Your task to perform on an android device: Search for seafood restaurants on Google Maps Image 0: 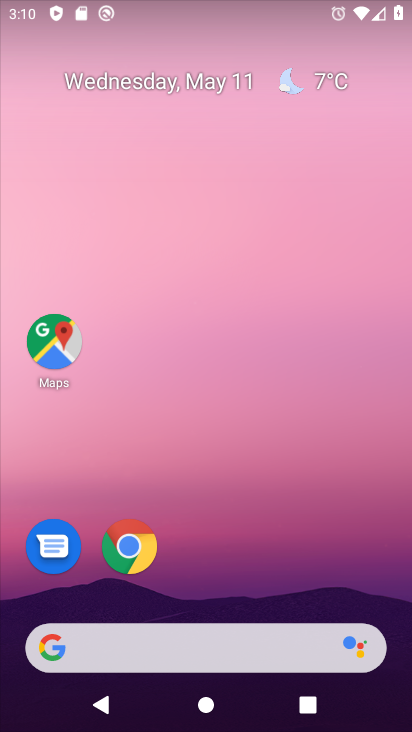
Step 0: drag from (262, 605) to (240, 21)
Your task to perform on an android device: Search for seafood restaurants on Google Maps Image 1: 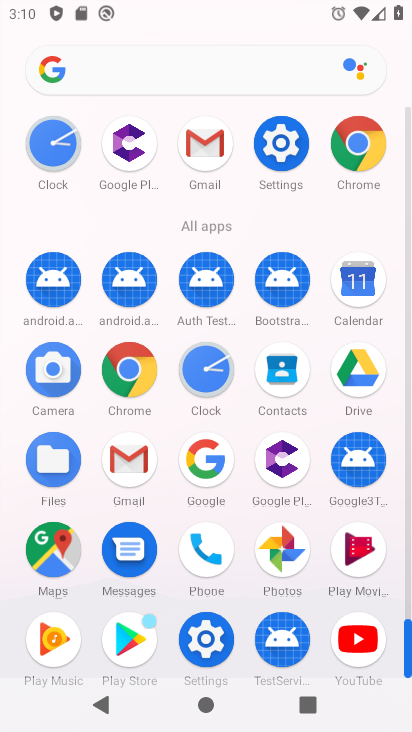
Step 1: click (56, 561)
Your task to perform on an android device: Search for seafood restaurants on Google Maps Image 2: 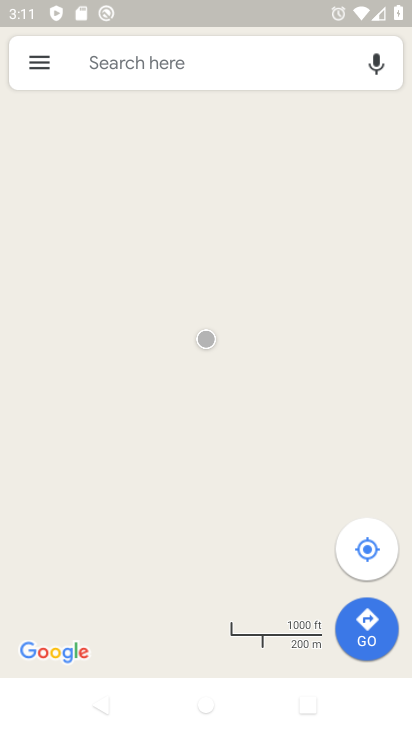
Step 2: click (204, 76)
Your task to perform on an android device: Search for seafood restaurants on Google Maps Image 3: 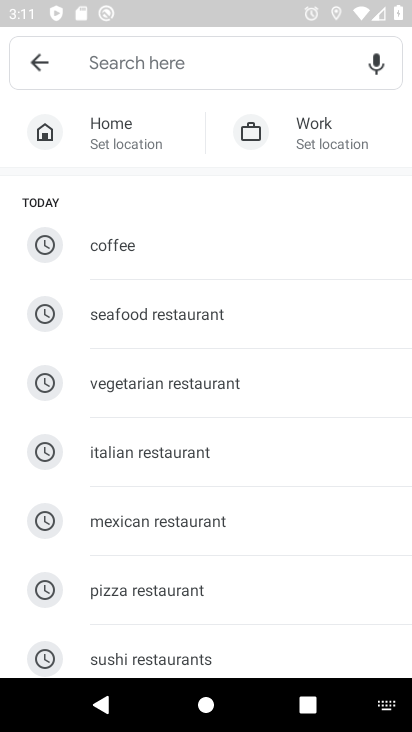
Step 3: type "seafood restaurant"
Your task to perform on an android device: Search for seafood restaurants on Google Maps Image 4: 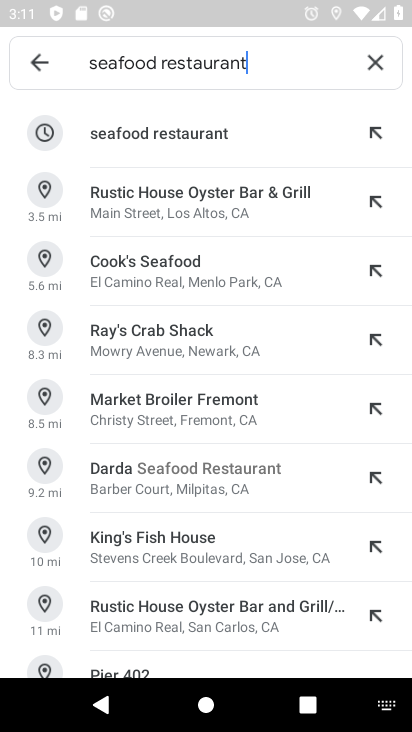
Step 4: click (175, 157)
Your task to perform on an android device: Search for seafood restaurants on Google Maps Image 5: 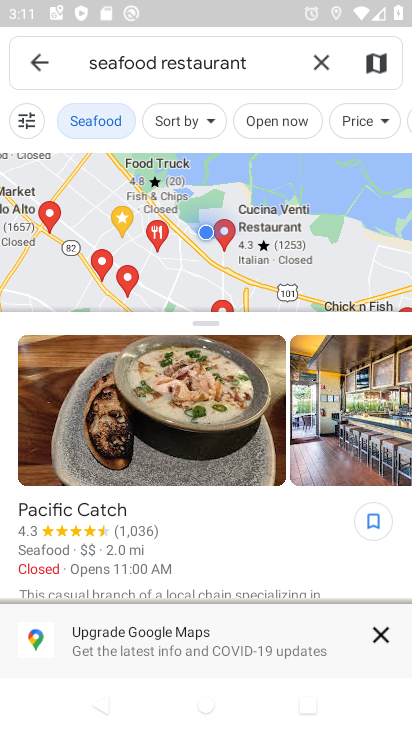
Step 5: task complete